Your task to perform on an android device: Search for 4k TVs on Best Buy. Image 0: 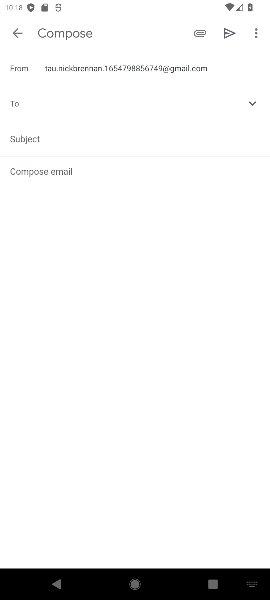
Step 0: task complete